Your task to perform on an android device: Go to accessibility settings Image 0: 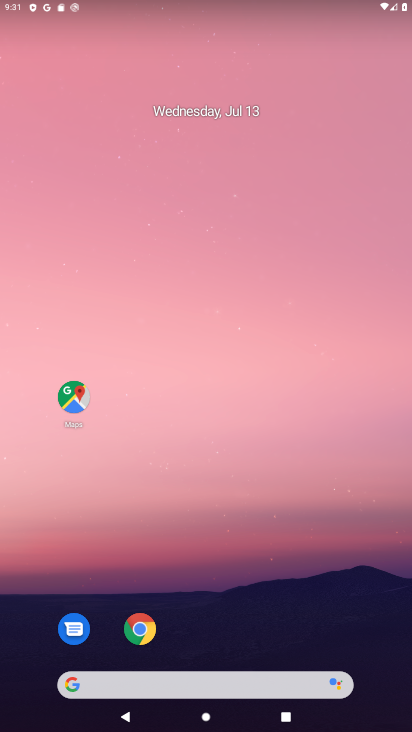
Step 0: drag from (252, 646) to (313, 226)
Your task to perform on an android device: Go to accessibility settings Image 1: 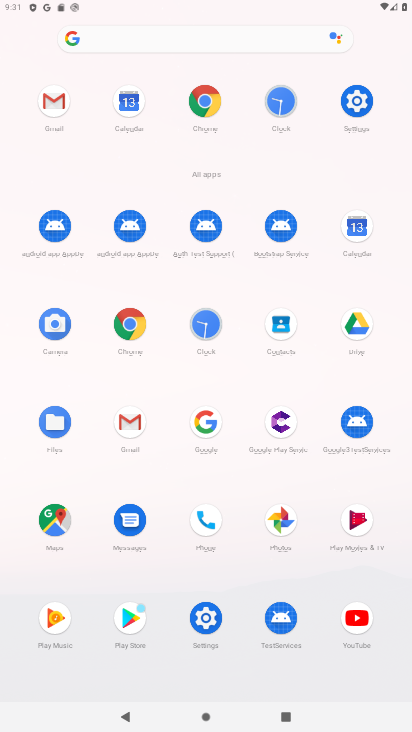
Step 1: click (200, 634)
Your task to perform on an android device: Go to accessibility settings Image 2: 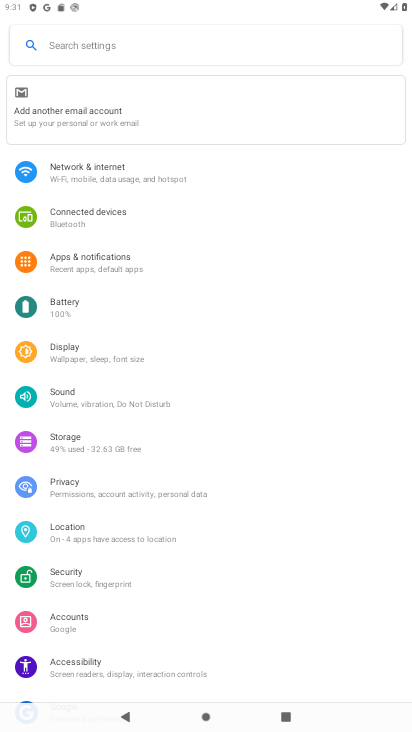
Step 2: click (133, 661)
Your task to perform on an android device: Go to accessibility settings Image 3: 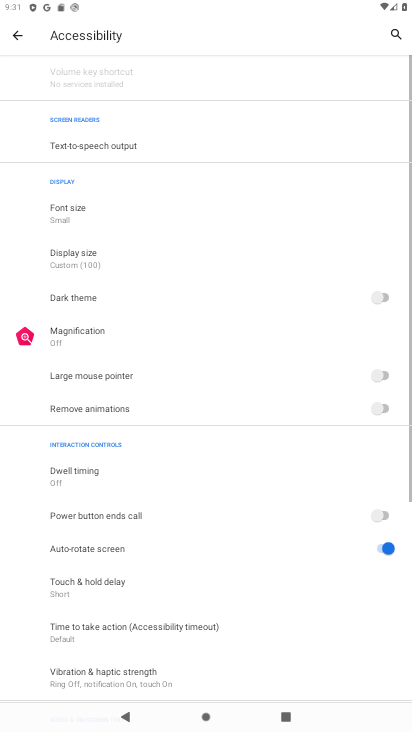
Step 3: task complete